Your task to perform on an android device: check battery use Image 0: 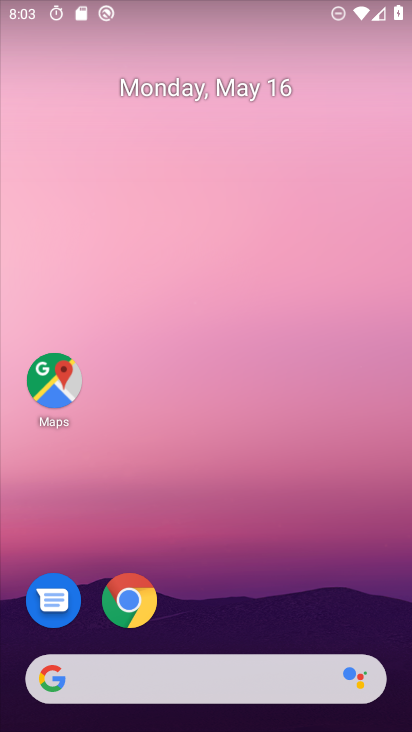
Step 0: drag from (146, 670) to (285, 233)
Your task to perform on an android device: check battery use Image 1: 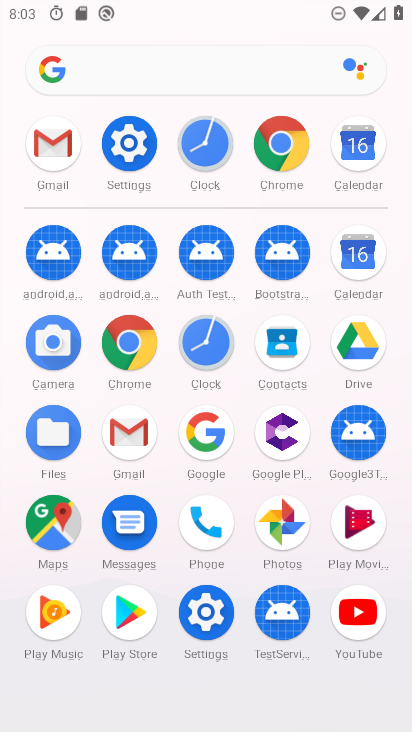
Step 1: click (128, 142)
Your task to perform on an android device: check battery use Image 2: 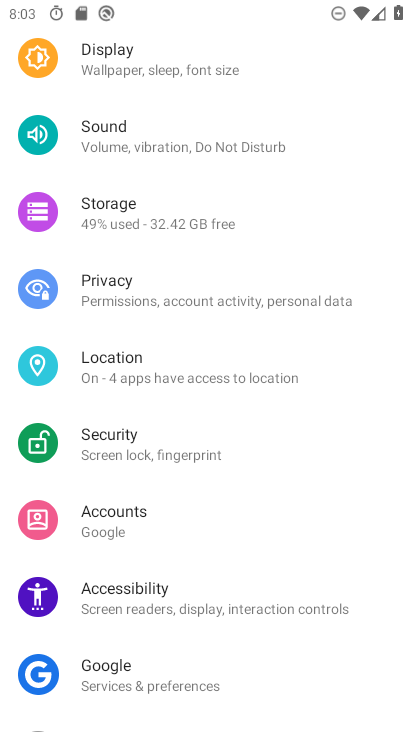
Step 2: drag from (356, 101) to (299, 428)
Your task to perform on an android device: check battery use Image 3: 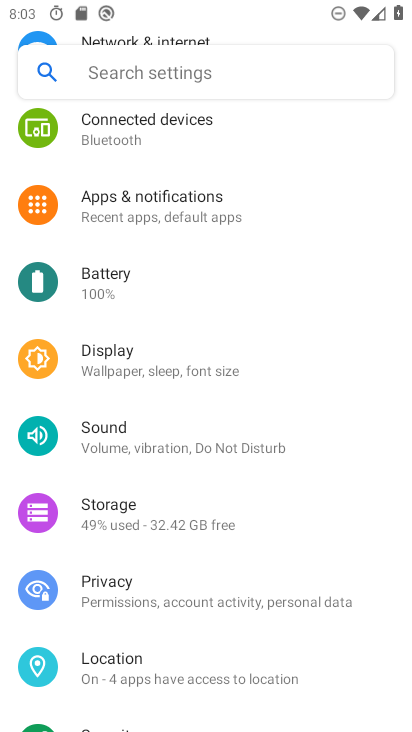
Step 3: click (87, 283)
Your task to perform on an android device: check battery use Image 4: 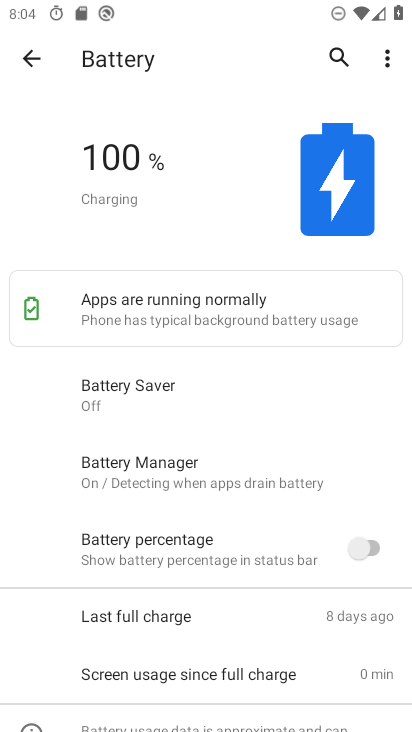
Step 4: click (387, 60)
Your task to perform on an android device: check battery use Image 5: 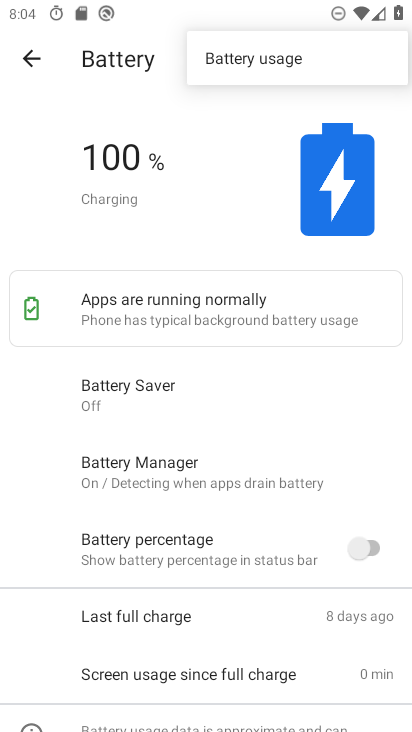
Step 5: click (280, 57)
Your task to perform on an android device: check battery use Image 6: 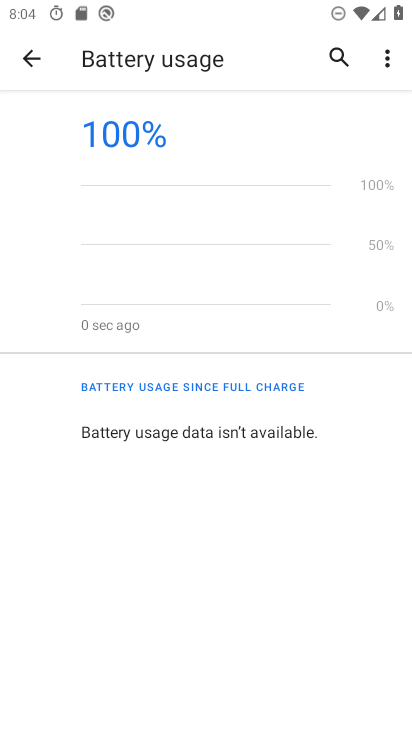
Step 6: task complete